Your task to perform on an android device: allow notifications from all sites in the chrome app Image 0: 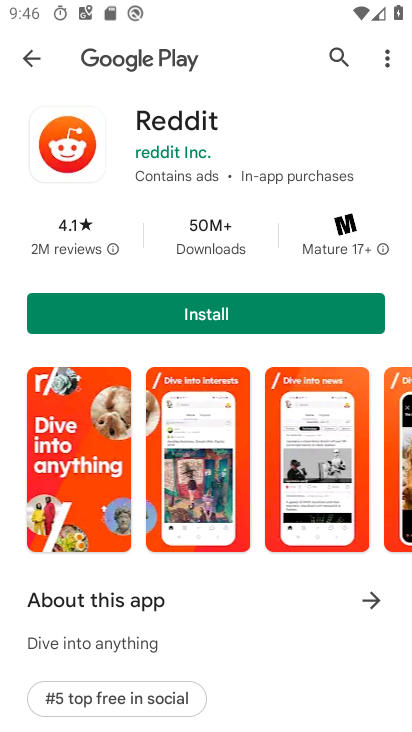
Step 0: press home button
Your task to perform on an android device: allow notifications from all sites in the chrome app Image 1: 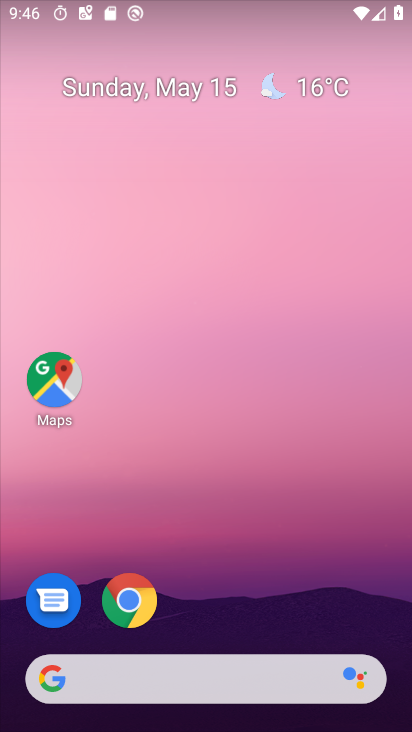
Step 1: drag from (204, 633) to (300, 29)
Your task to perform on an android device: allow notifications from all sites in the chrome app Image 2: 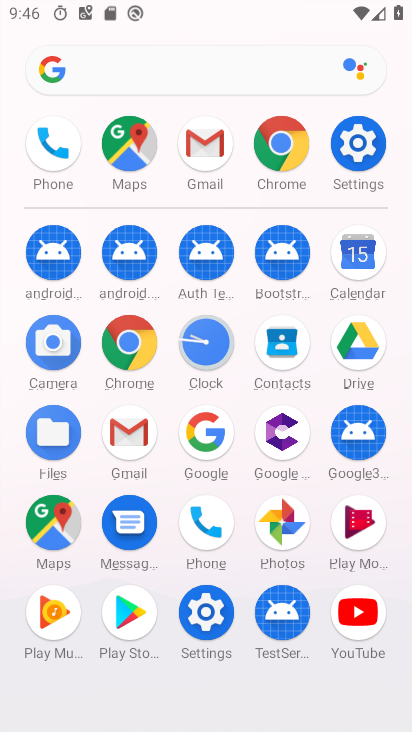
Step 2: click (355, 622)
Your task to perform on an android device: allow notifications from all sites in the chrome app Image 3: 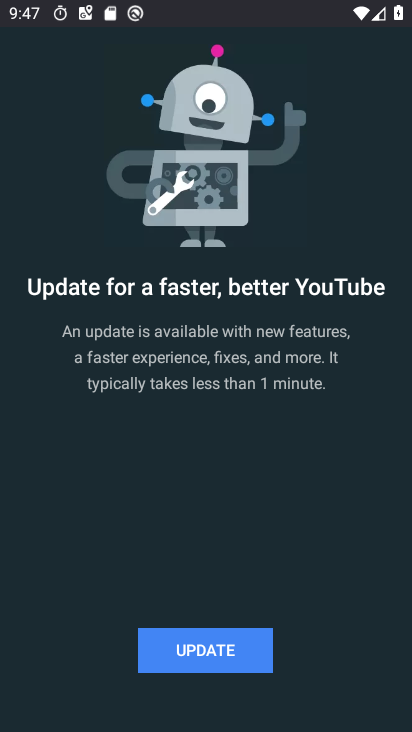
Step 3: press back button
Your task to perform on an android device: allow notifications from all sites in the chrome app Image 4: 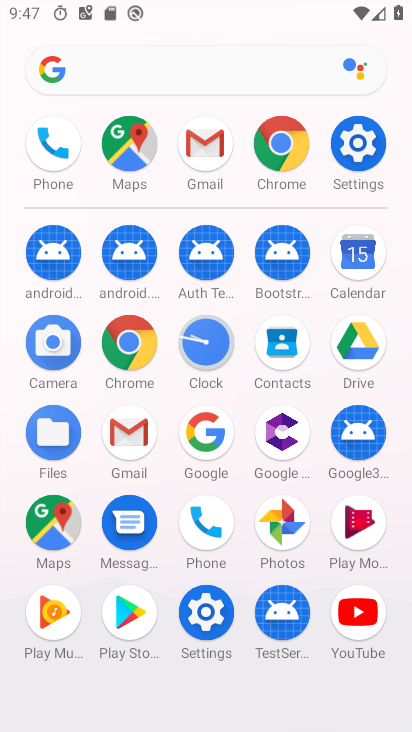
Step 4: click (282, 138)
Your task to perform on an android device: allow notifications from all sites in the chrome app Image 5: 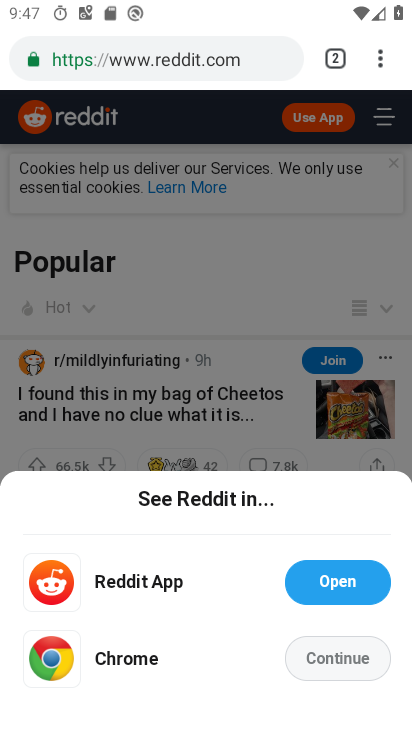
Step 5: click (343, 652)
Your task to perform on an android device: allow notifications from all sites in the chrome app Image 6: 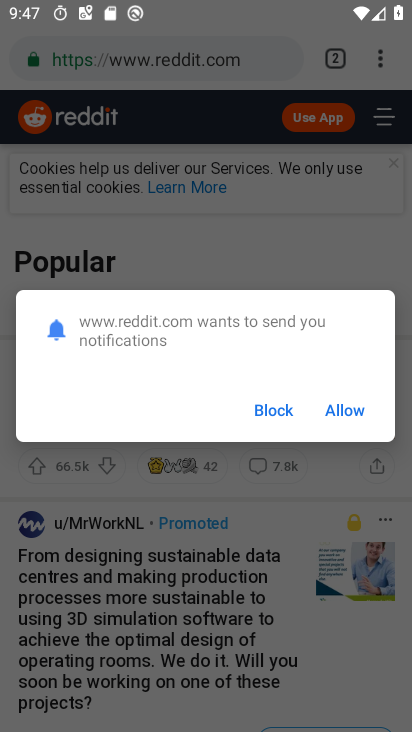
Step 6: click (357, 402)
Your task to perform on an android device: allow notifications from all sites in the chrome app Image 7: 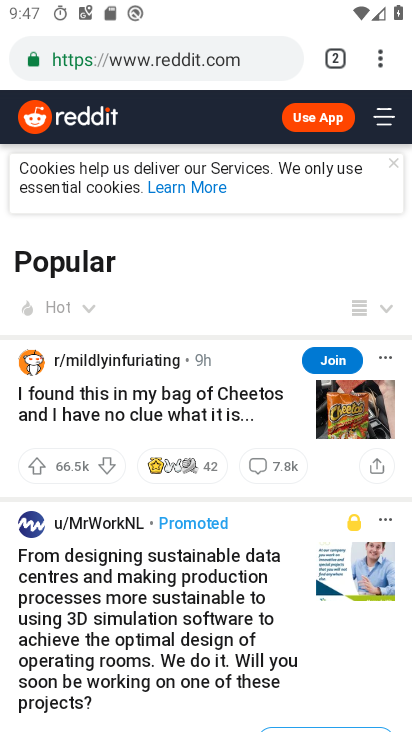
Step 7: click (372, 44)
Your task to perform on an android device: allow notifications from all sites in the chrome app Image 8: 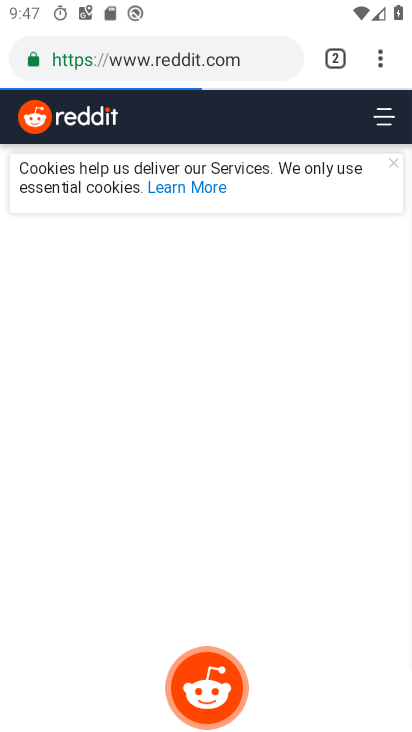
Step 8: drag from (382, 64) to (183, 622)
Your task to perform on an android device: allow notifications from all sites in the chrome app Image 9: 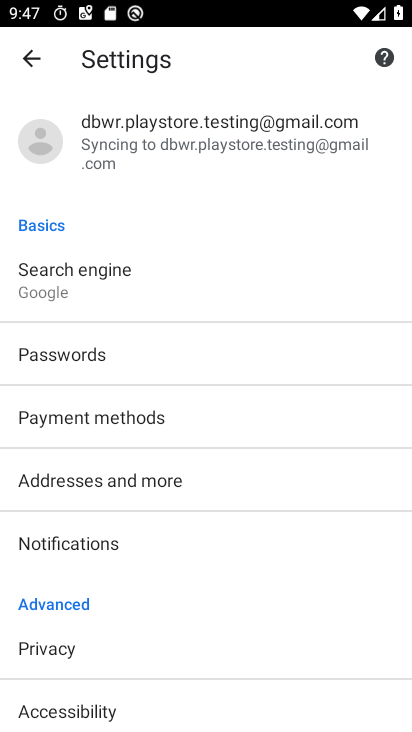
Step 9: drag from (152, 610) to (187, 156)
Your task to perform on an android device: allow notifications from all sites in the chrome app Image 10: 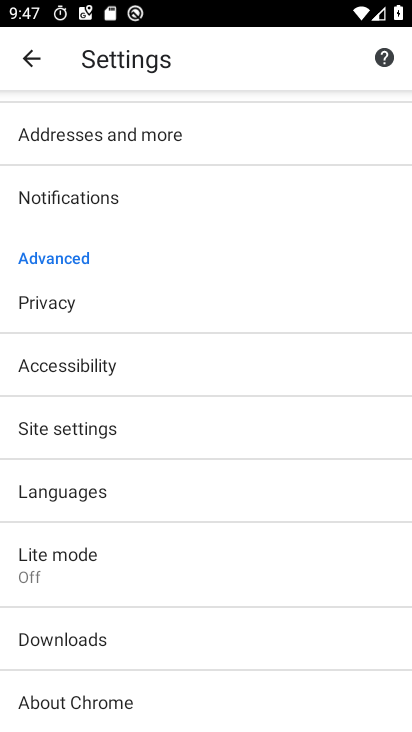
Step 10: click (87, 433)
Your task to perform on an android device: allow notifications from all sites in the chrome app Image 11: 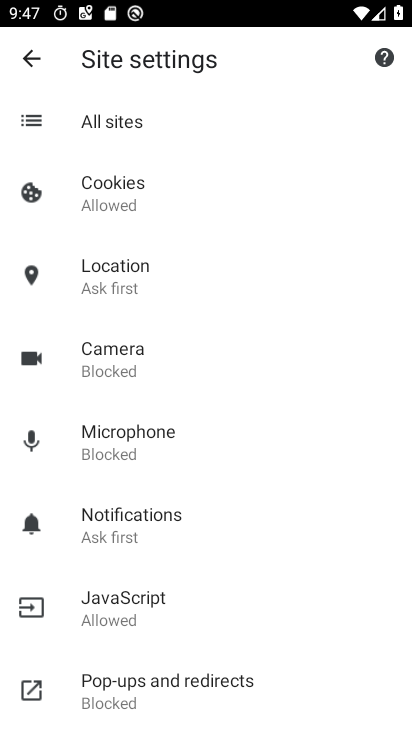
Step 11: click (115, 527)
Your task to perform on an android device: allow notifications from all sites in the chrome app Image 12: 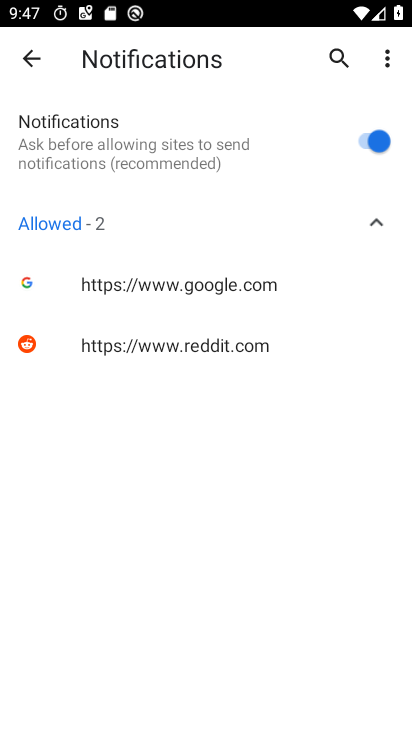
Step 12: task complete